Your task to perform on an android device: Show the shopping cart on amazon. Add "duracell triple a" to the cart on amazon, then select checkout. Image 0: 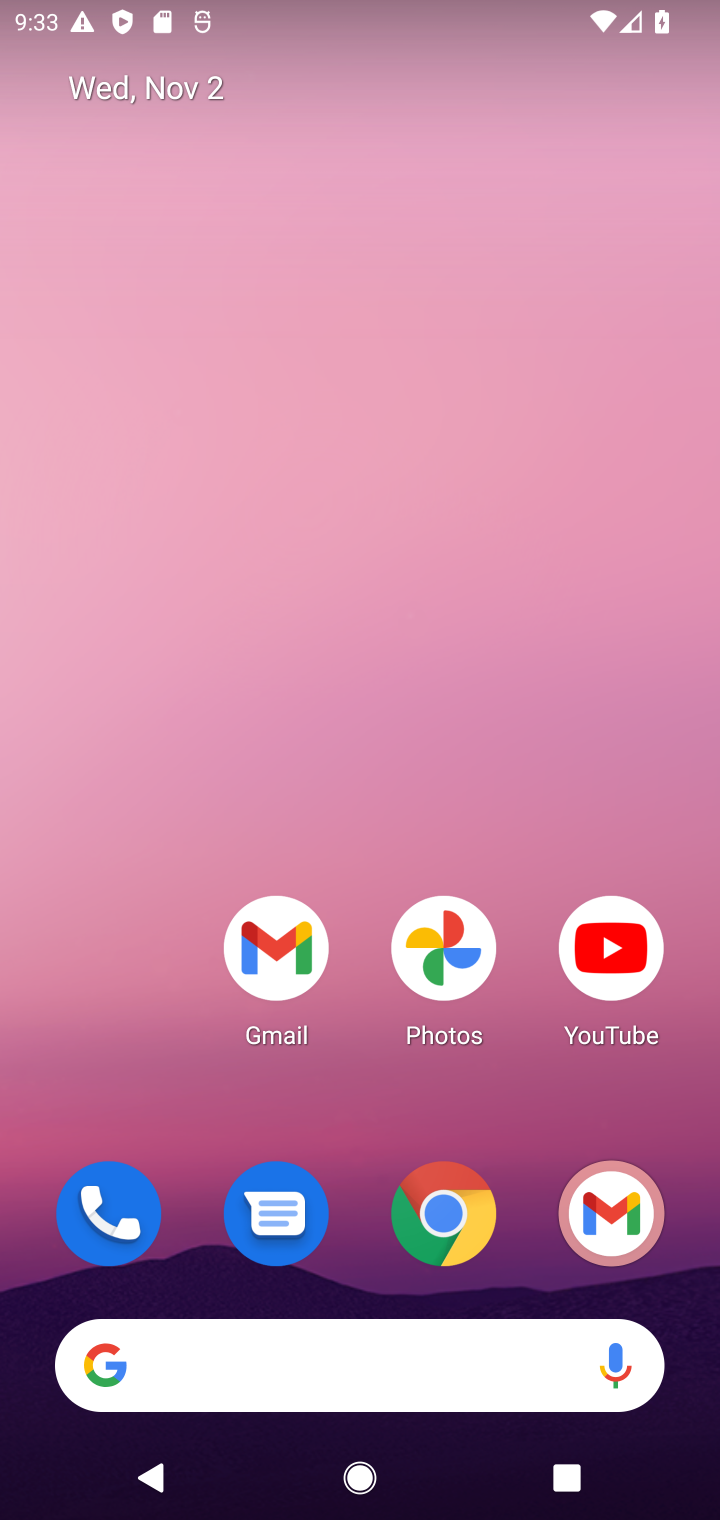
Step 0: click (447, 1209)
Your task to perform on an android device: Show the shopping cart on amazon. Add "duracell triple a" to the cart on amazon, then select checkout. Image 1: 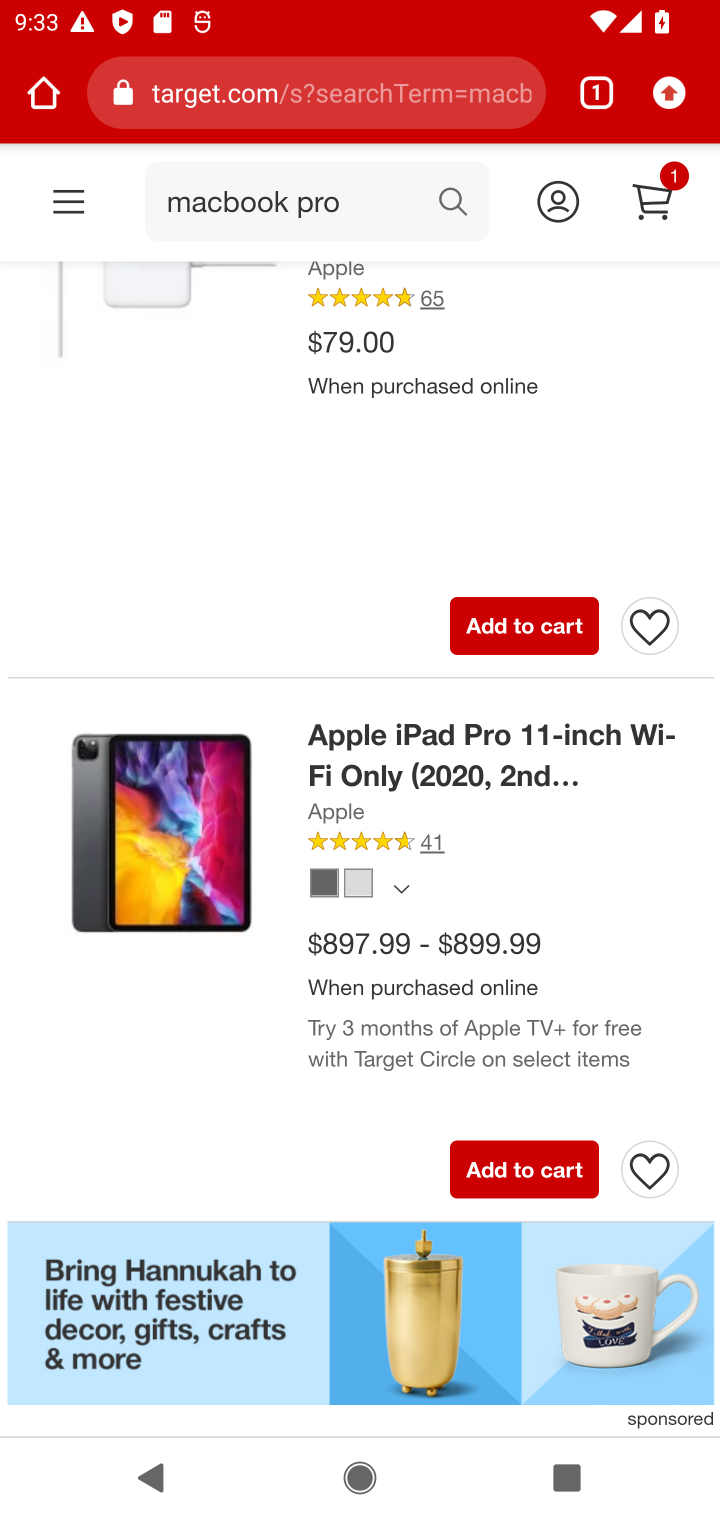
Step 1: click (309, 108)
Your task to perform on an android device: Show the shopping cart on amazon. Add "duracell triple a" to the cart on amazon, then select checkout. Image 2: 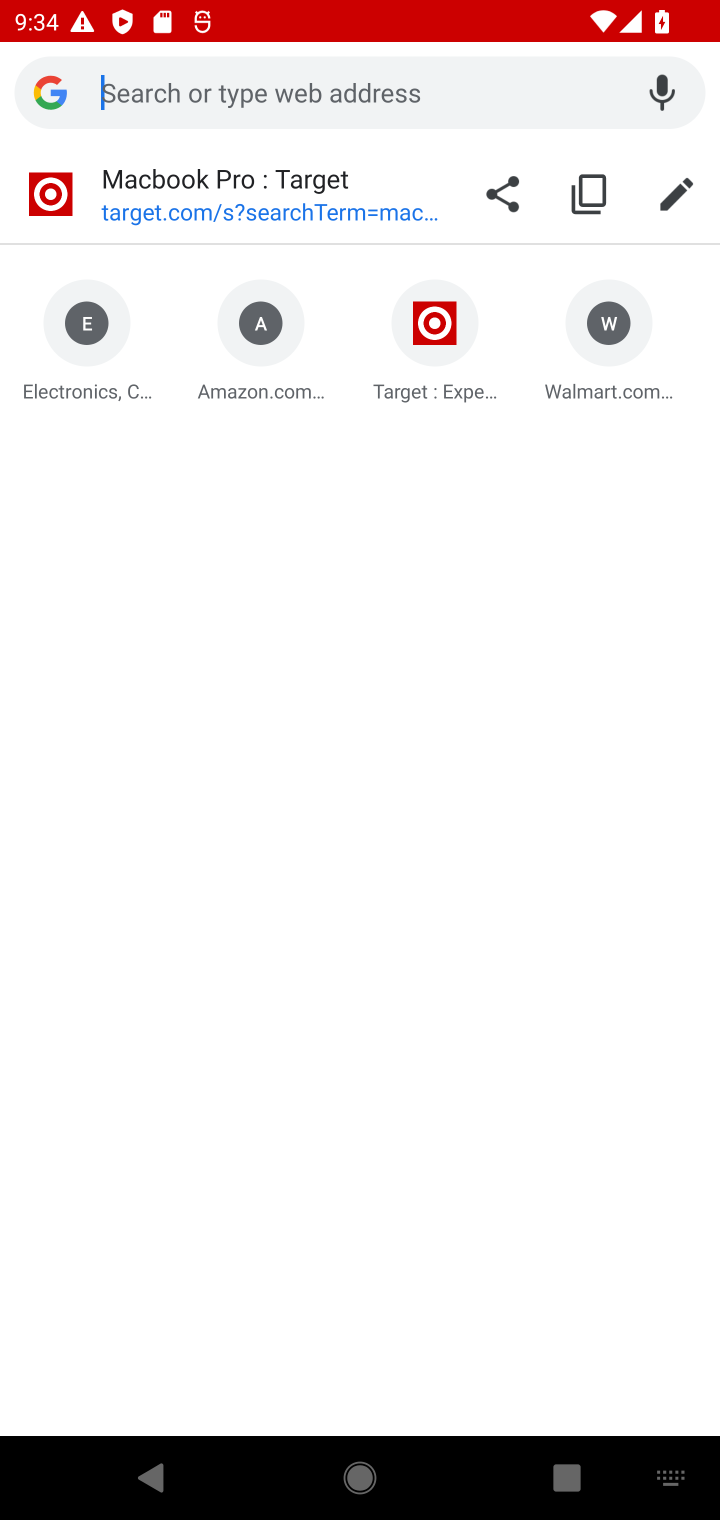
Step 2: click (263, 350)
Your task to perform on an android device: Show the shopping cart on amazon. Add "duracell triple a" to the cart on amazon, then select checkout. Image 3: 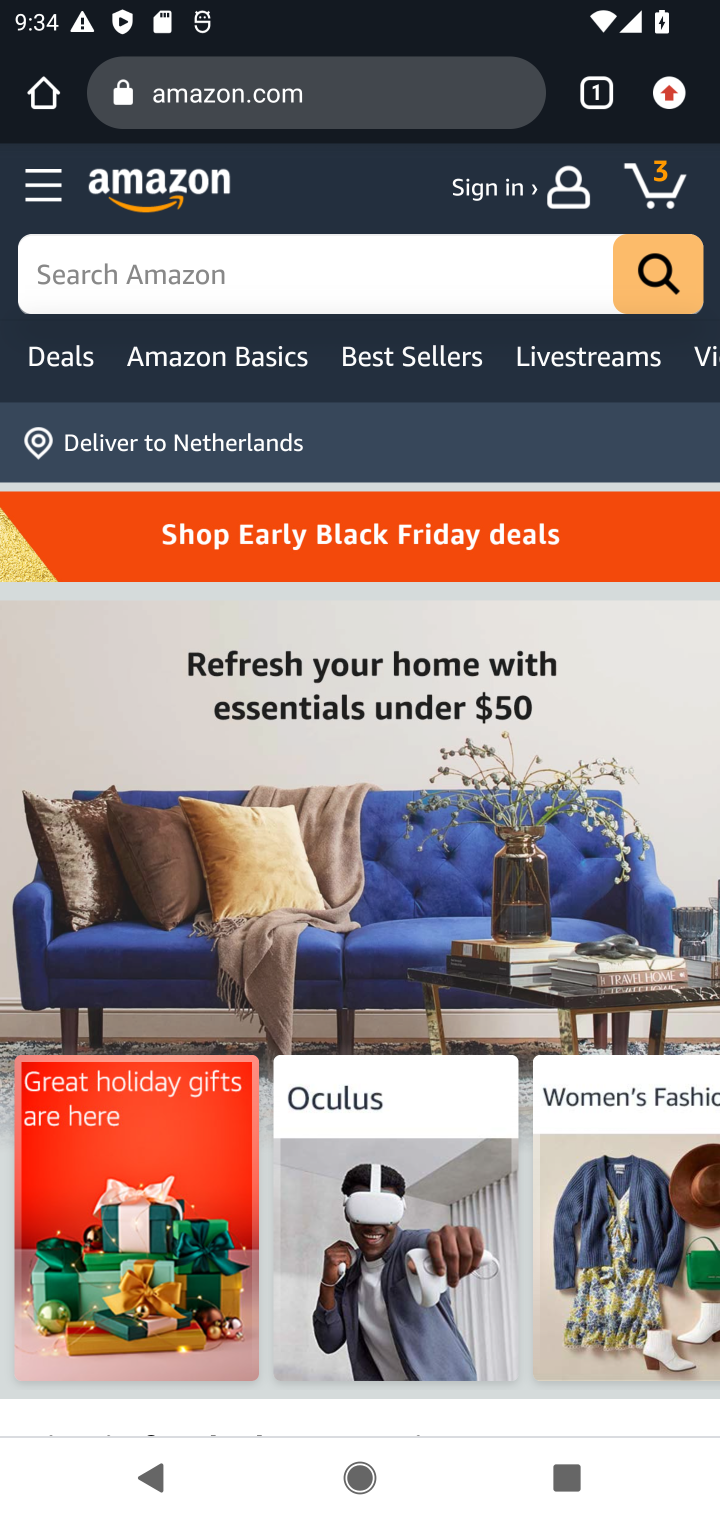
Step 3: click (658, 180)
Your task to perform on an android device: Show the shopping cart on amazon. Add "duracell triple a" to the cart on amazon, then select checkout. Image 4: 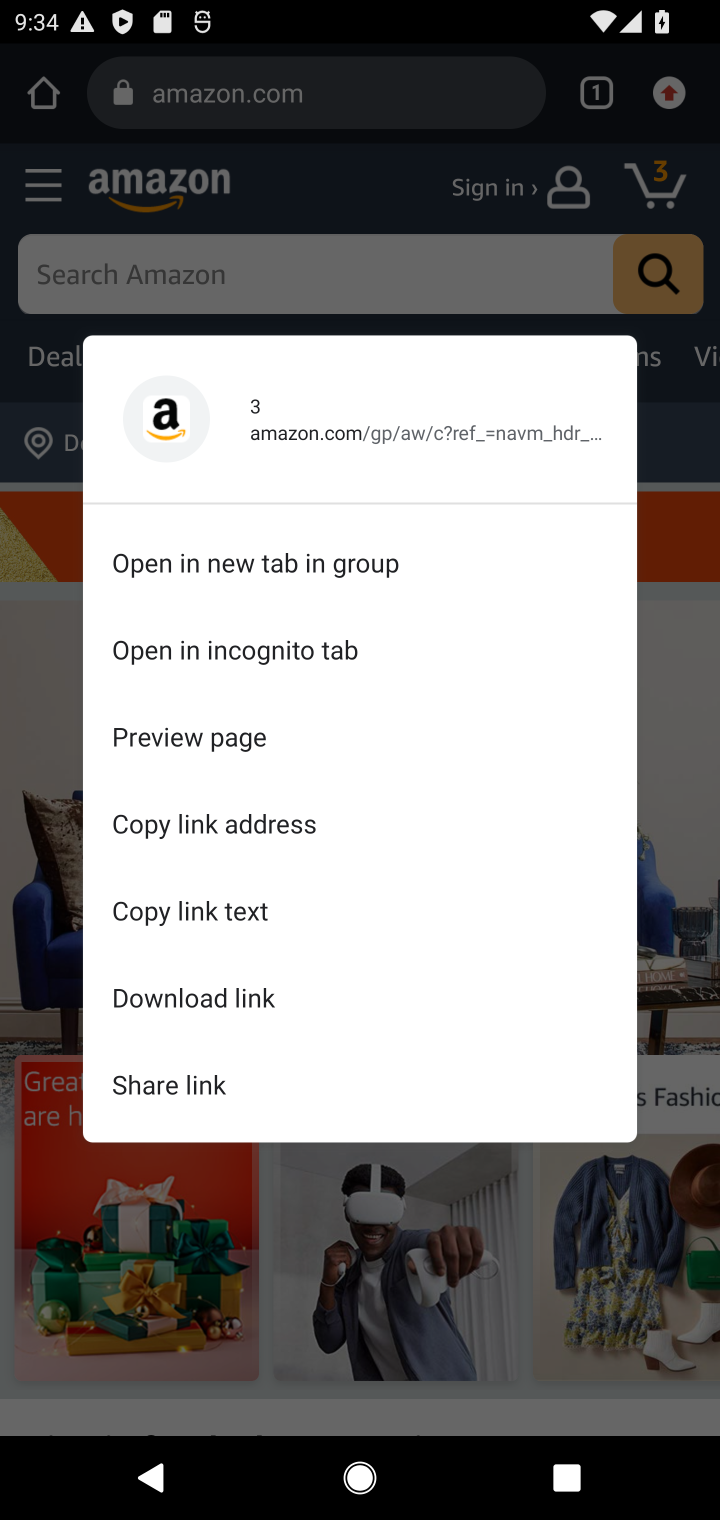
Step 4: click (659, 182)
Your task to perform on an android device: Show the shopping cart on amazon. Add "duracell triple a" to the cart on amazon, then select checkout. Image 5: 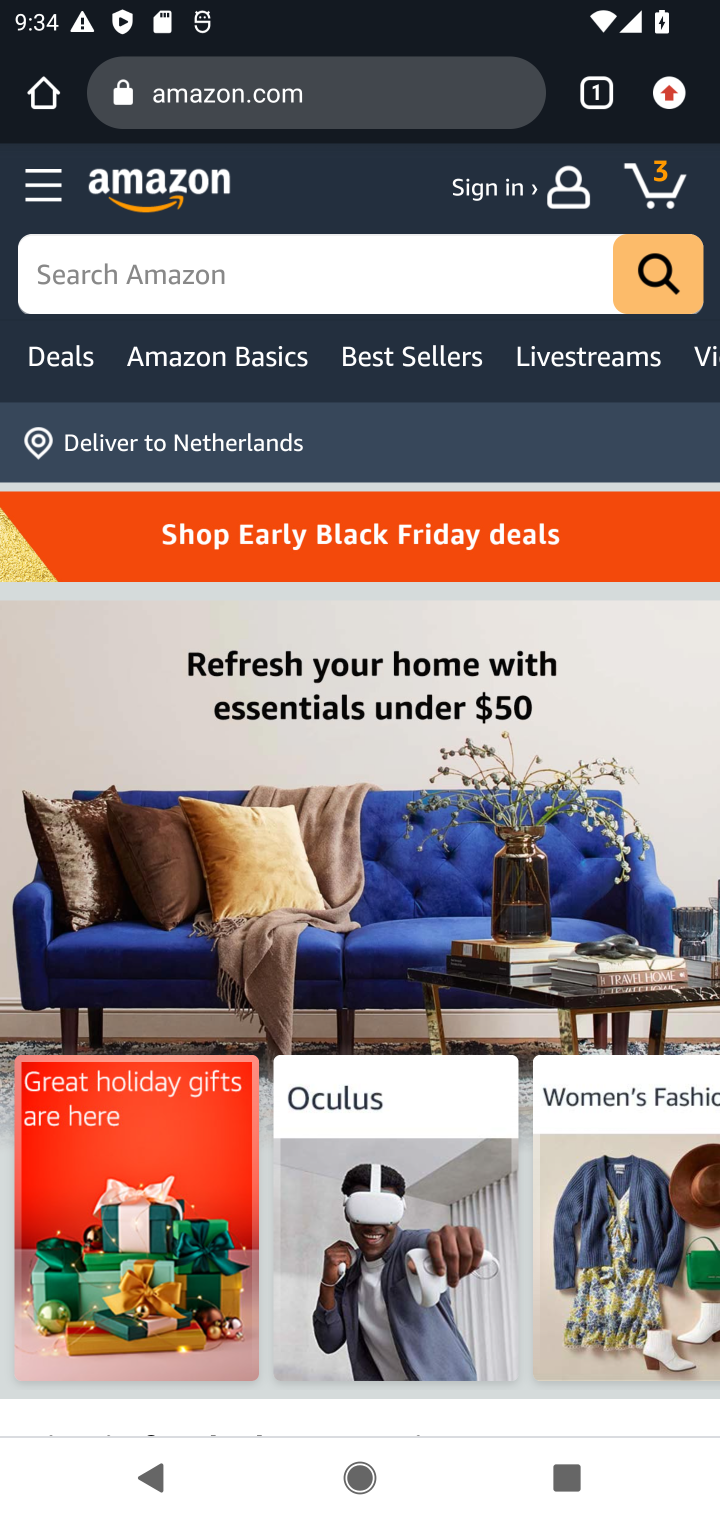
Step 5: click (659, 182)
Your task to perform on an android device: Show the shopping cart on amazon. Add "duracell triple a" to the cart on amazon, then select checkout. Image 6: 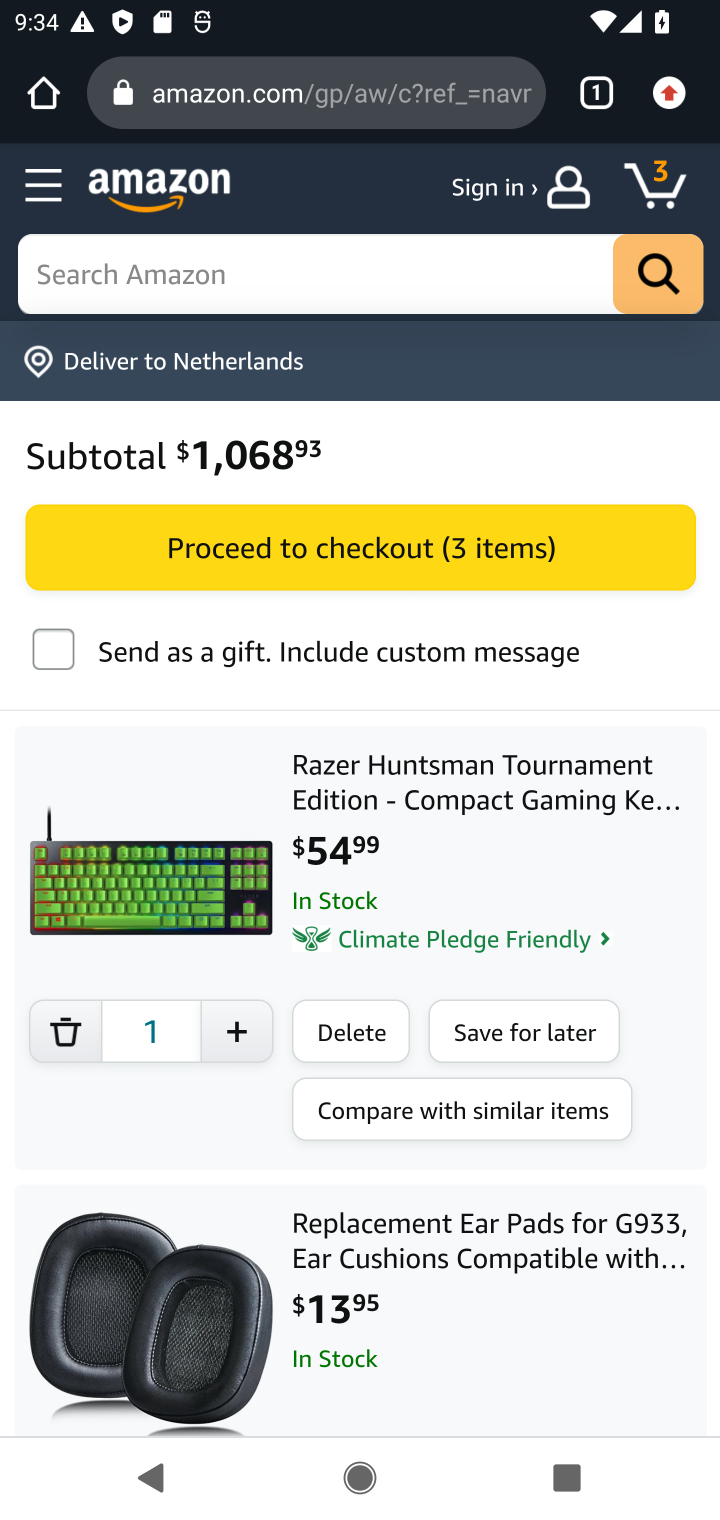
Step 6: click (198, 274)
Your task to perform on an android device: Show the shopping cart on amazon. Add "duracell triple a" to the cart on amazon, then select checkout. Image 7: 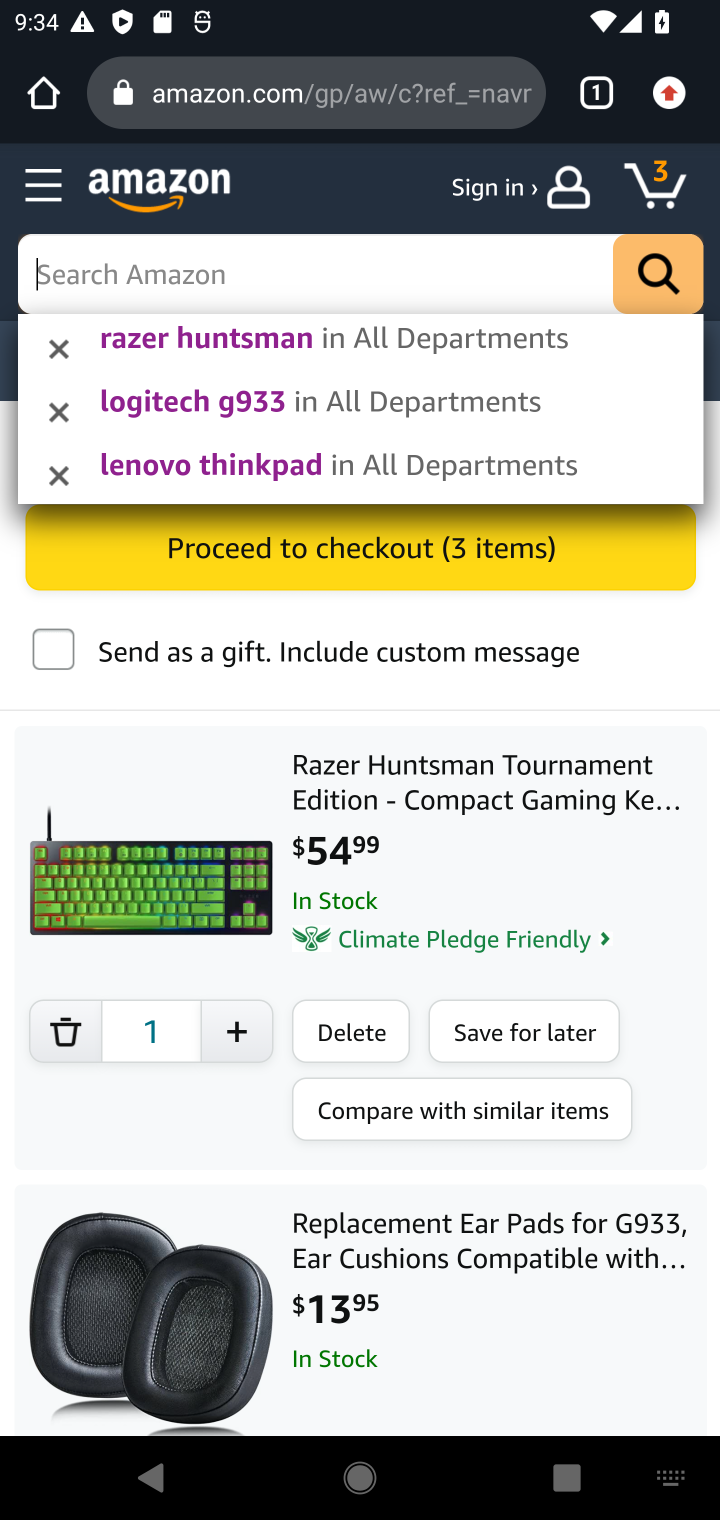
Step 7: type "duracell triple a"
Your task to perform on an android device: Show the shopping cart on amazon. Add "duracell triple a" to the cart on amazon, then select checkout. Image 8: 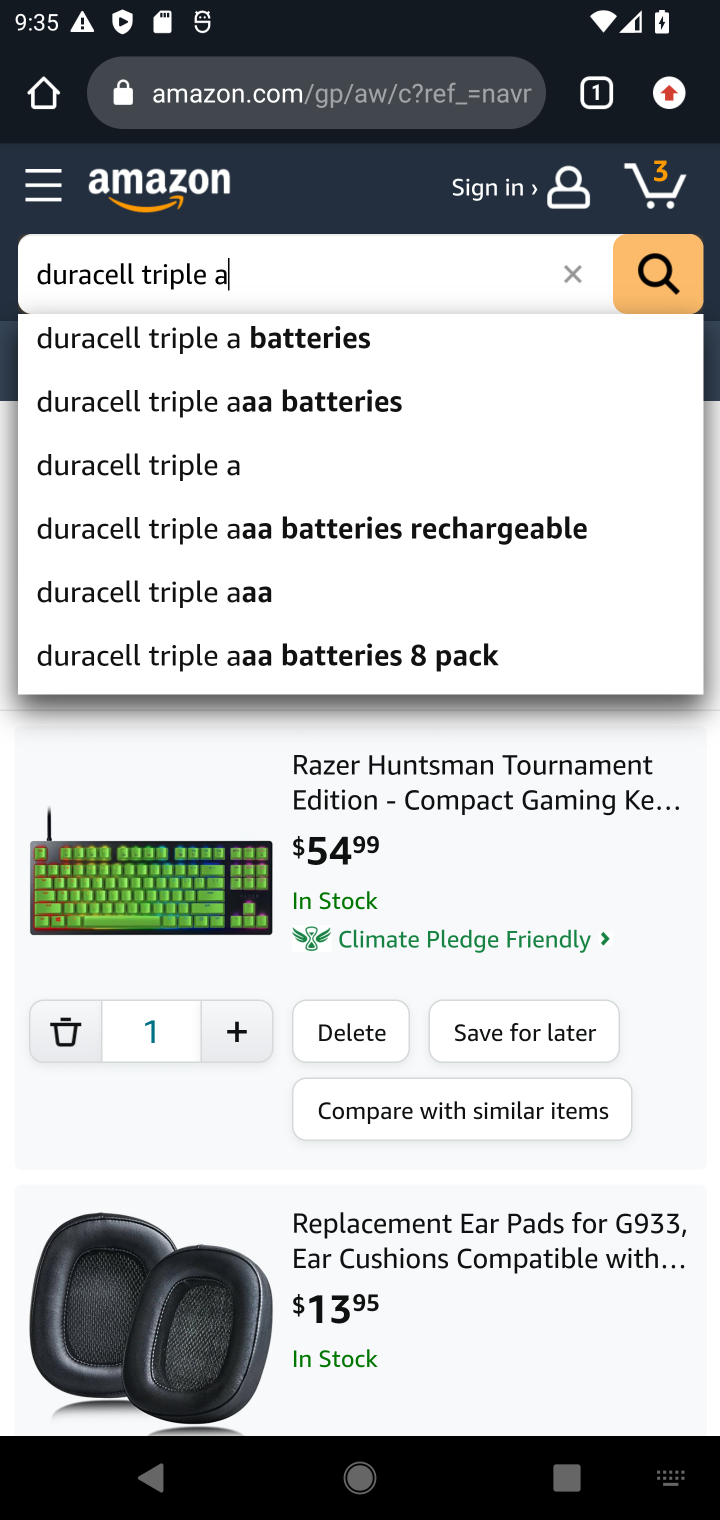
Step 8: click (280, 344)
Your task to perform on an android device: Show the shopping cart on amazon. Add "duracell triple a" to the cart on amazon, then select checkout. Image 9: 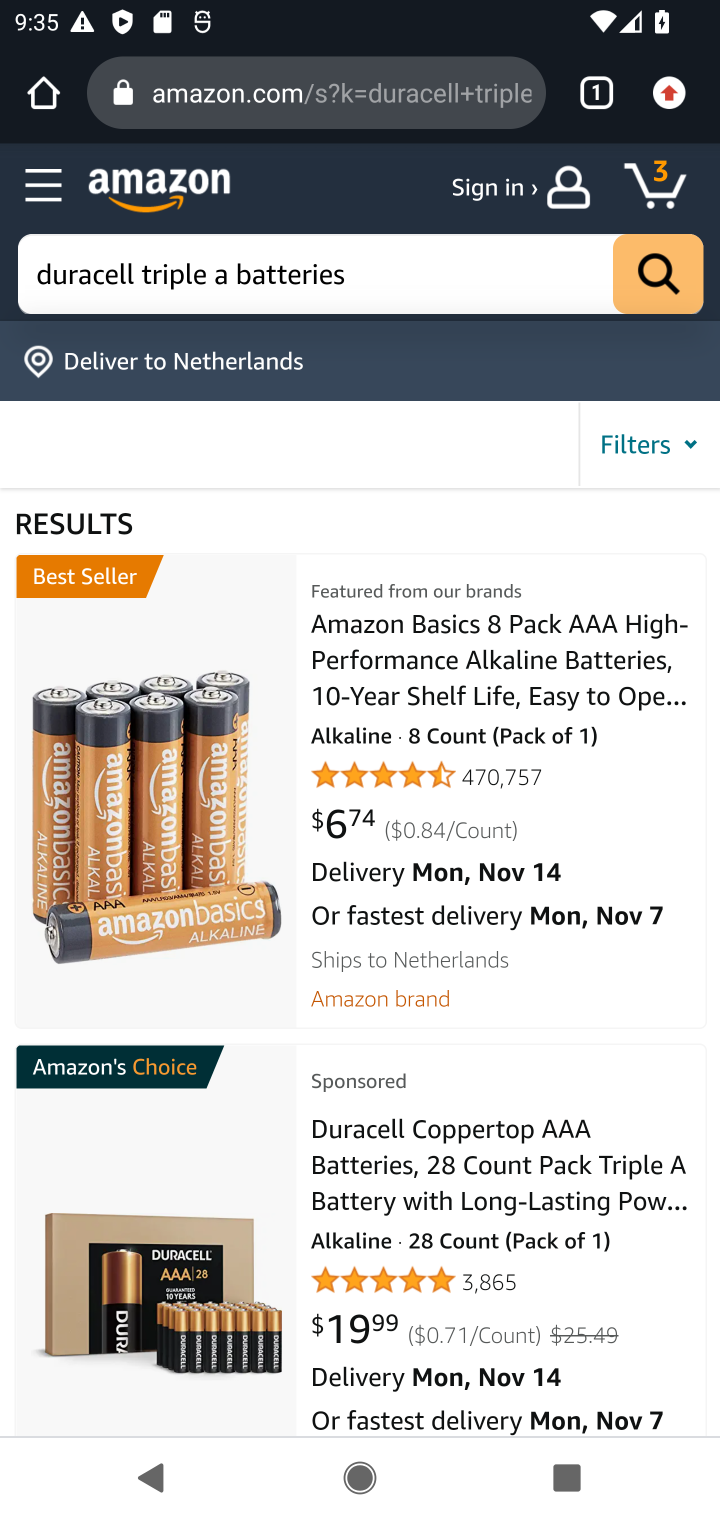
Step 9: click (298, 1275)
Your task to perform on an android device: Show the shopping cart on amazon. Add "duracell triple a" to the cart on amazon, then select checkout. Image 10: 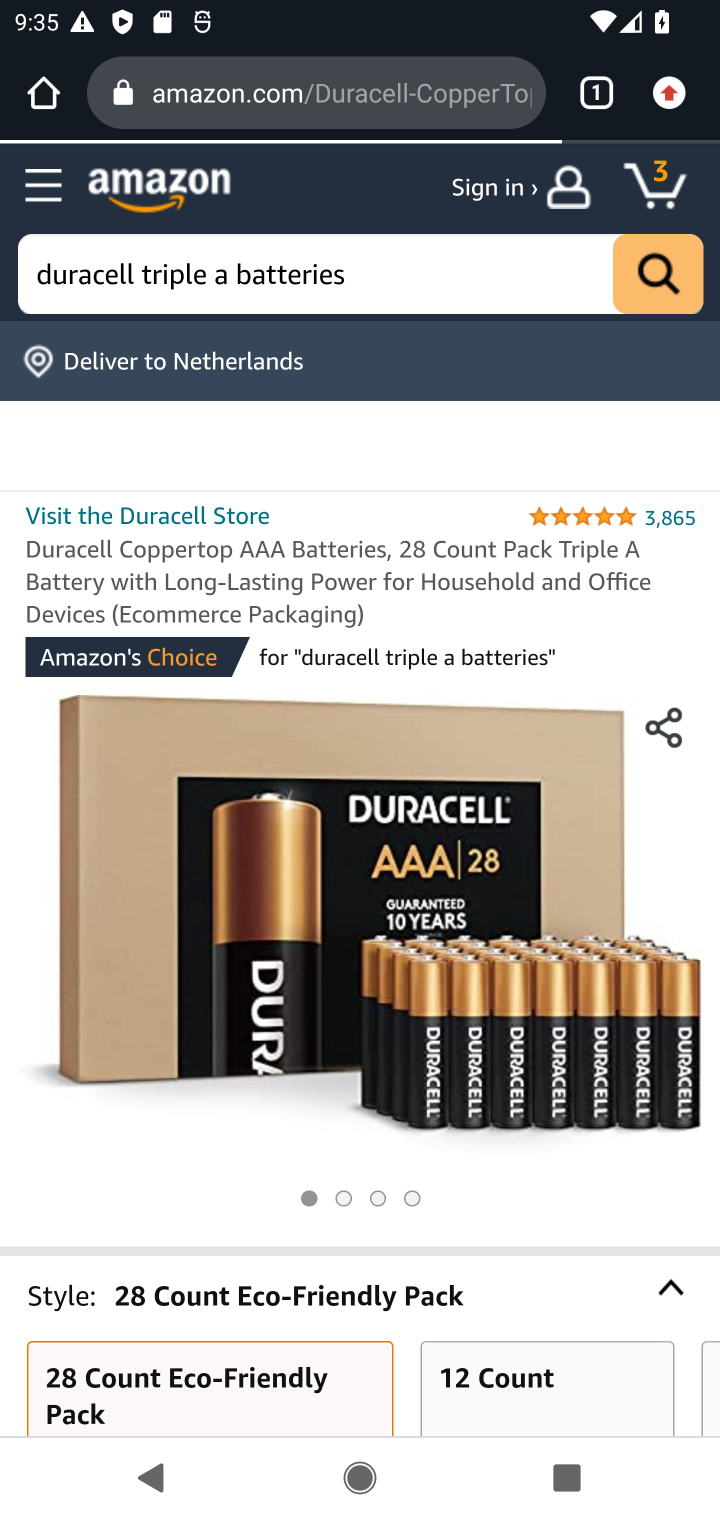
Step 10: drag from (314, 1265) to (352, 748)
Your task to perform on an android device: Show the shopping cart on amazon. Add "duracell triple a" to the cart on amazon, then select checkout. Image 11: 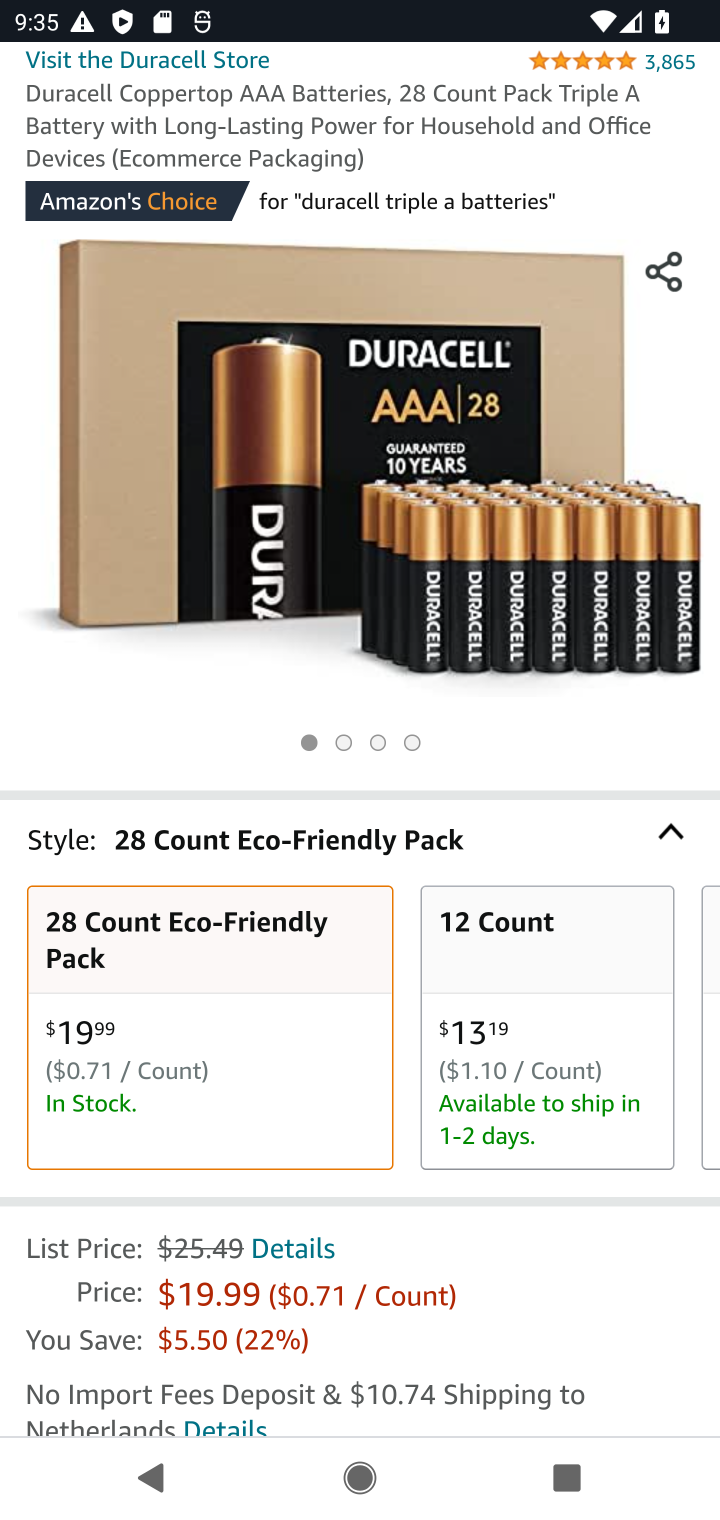
Step 11: drag from (387, 1132) to (398, 593)
Your task to perform on an android device: Show the shopping cart on amazon. Add "duracell triple a" to the cart on amazon, then select checkout. Image 12: 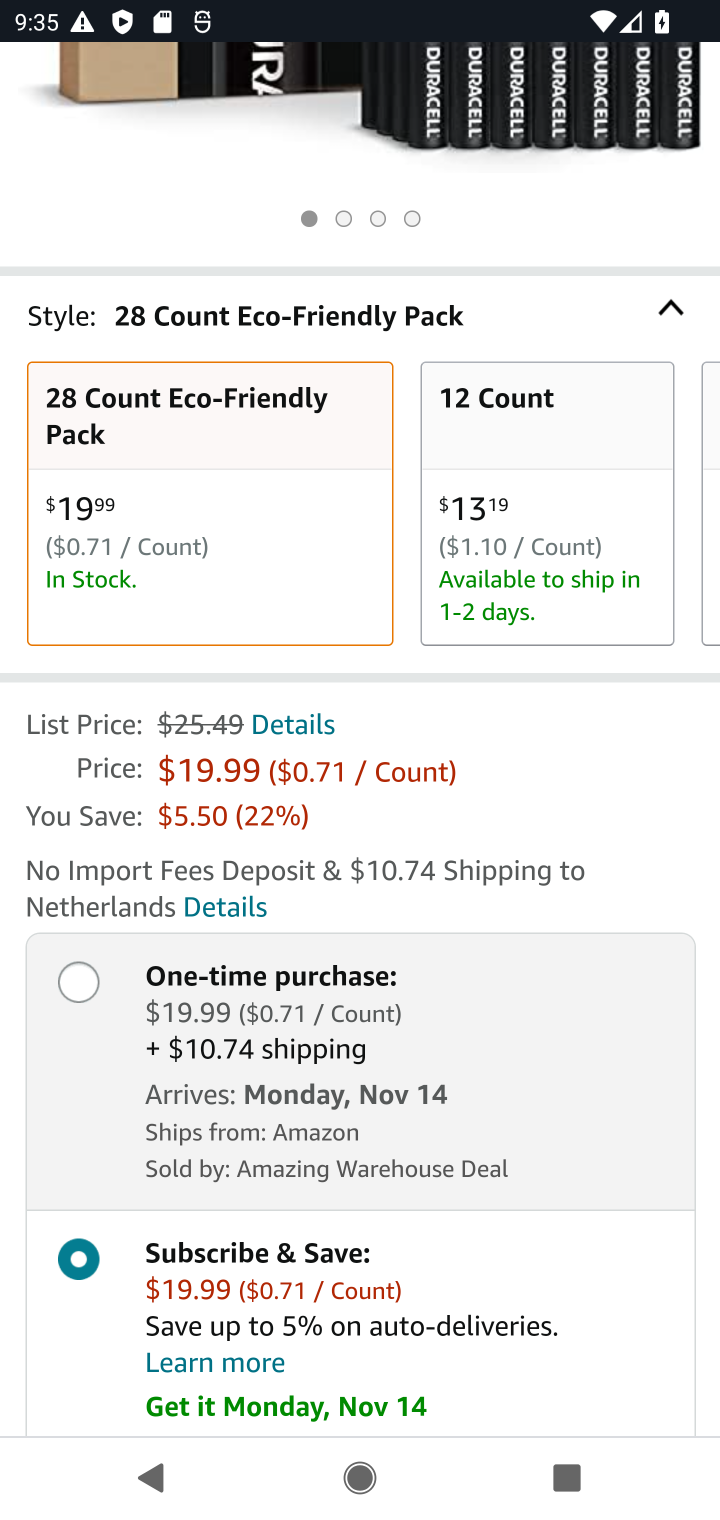
Step 12: click (76, 991)
Your task to perform on an android device: Show the shopping cart on amazon. Add "duracell triple a" to the cart on amazon, then select checkout. Image 13: 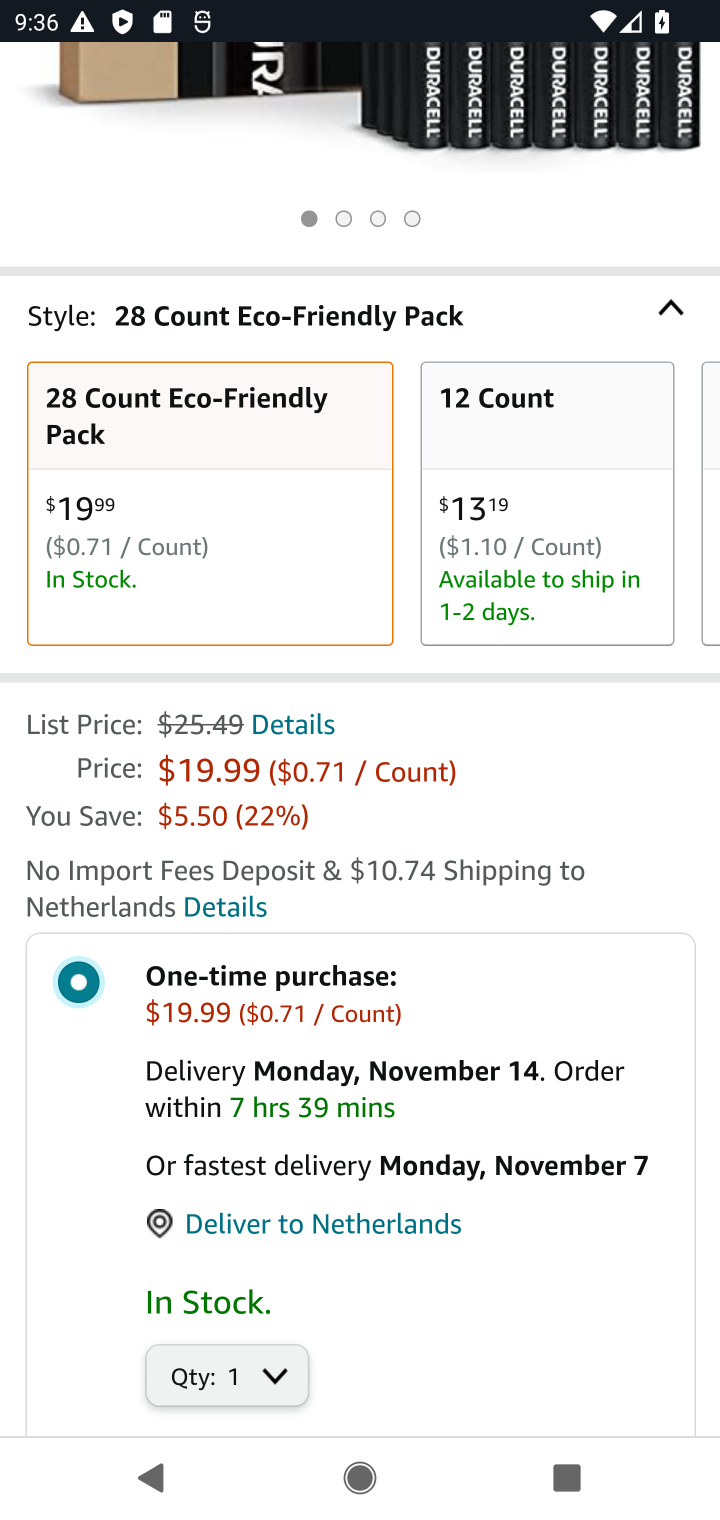
Step 13: drag from (410, 1109) to (425, 708)
Your task to perform on an android device: Show the shopping cart on amazon. Add "duracell triple a" to the cart on amazon, then select checkout. Image 14: 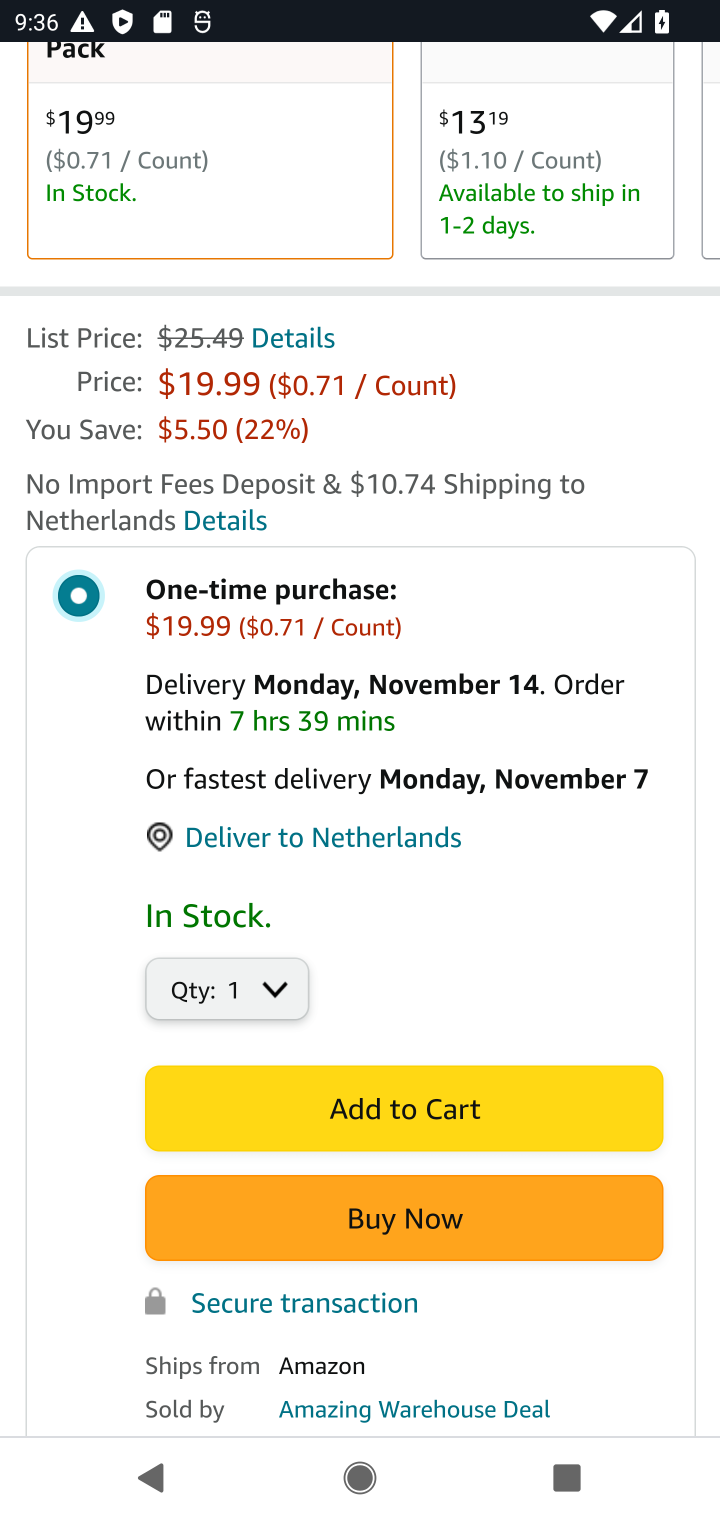
Step 14: click (418, 1112)
Your task to perform on an android device: Show the shopping cart on amazon. Add "duracell triple a" to the cart on amazon, then select checkout. Image 15: 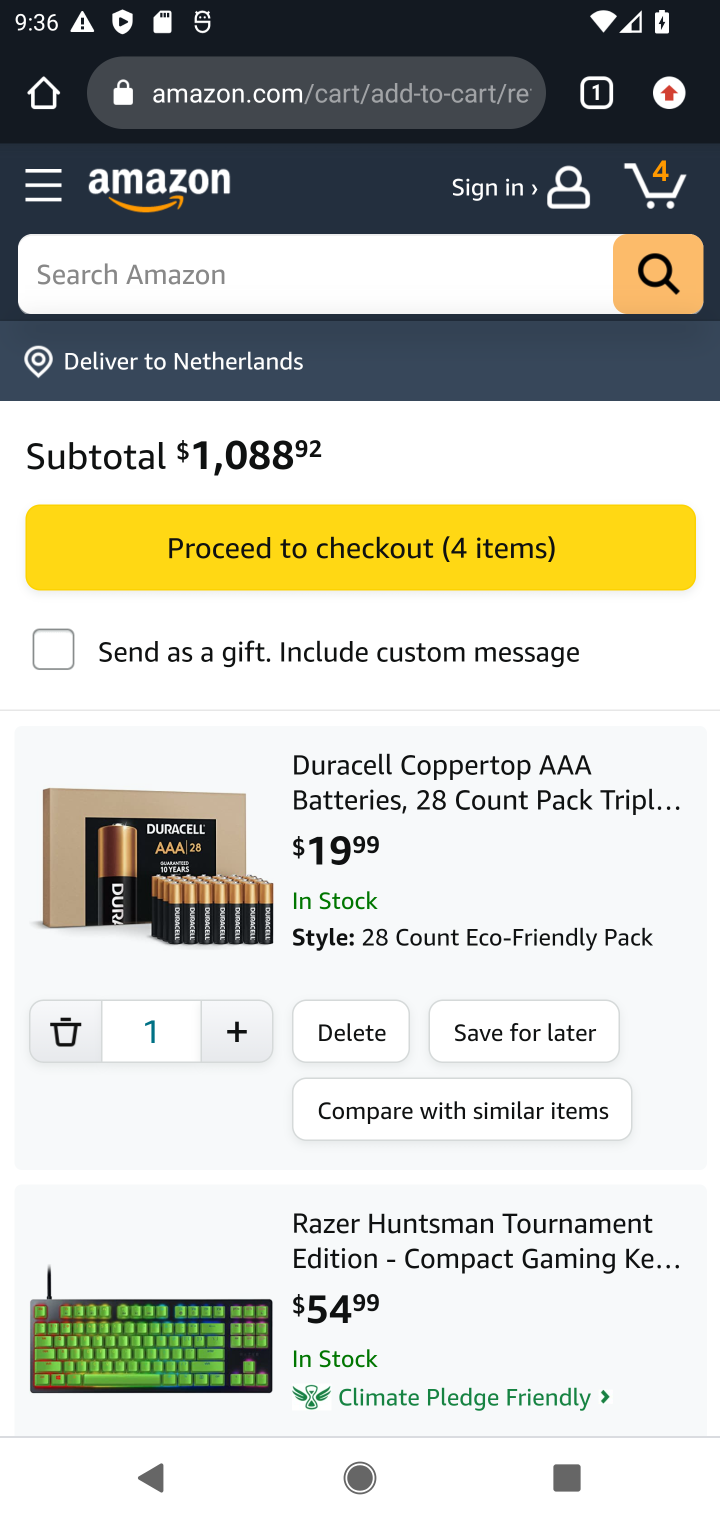
Step 15: click (408, 548)
Your task to perform on an android device: Show the shopping cart on amazon. Add "duracell triple a" to the cart on amazon, then select checkout. Image 16: 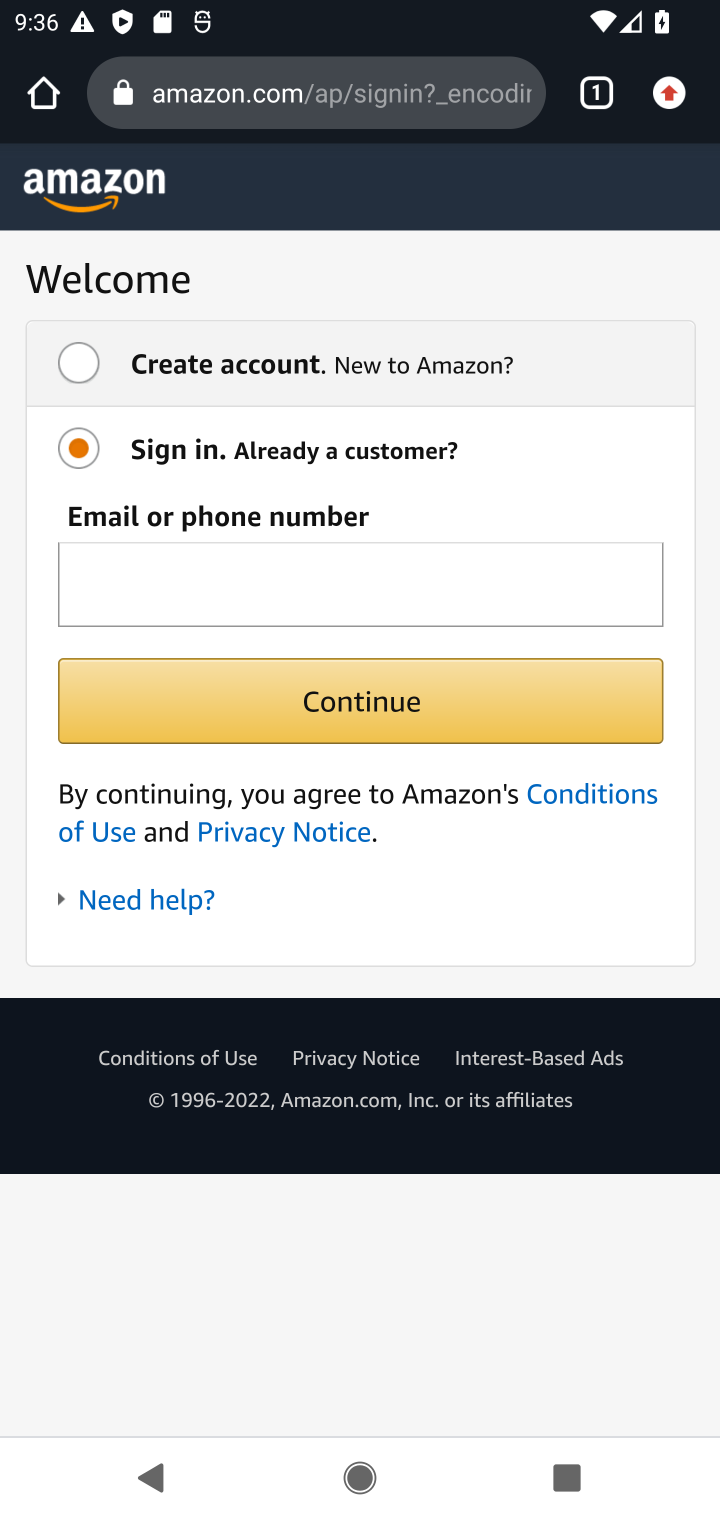
Step 16: task complete